Your task to perform on an android device: turn off improve location accuracy Image 0: 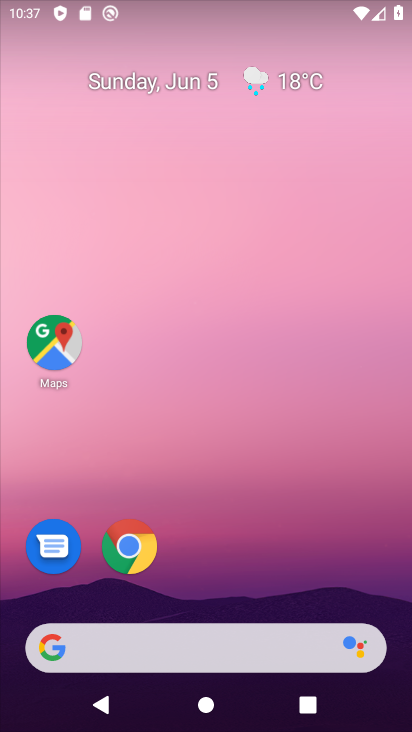
Step 0: drag from (149, 725) to (234, 193)
Your task to perform on an android device: turn off improve location accuracy Image 1: 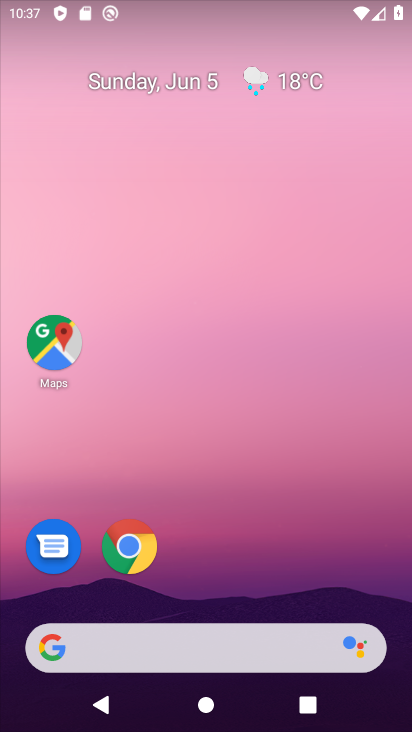
Step 1: drag from (158, 719) to (228, 4)
Your task to perform on an android device: turn off improve location accuracy Image 2: 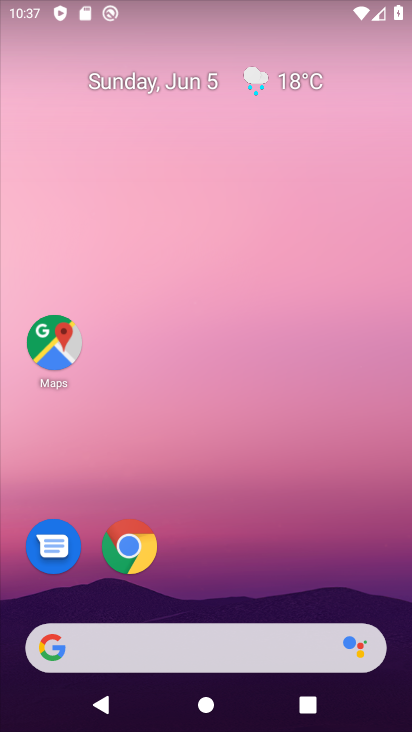
Step 2: drag from (154, 727) to (263, 26)
Your task to perform on an android device: turn off improve location accuracy Image 3: 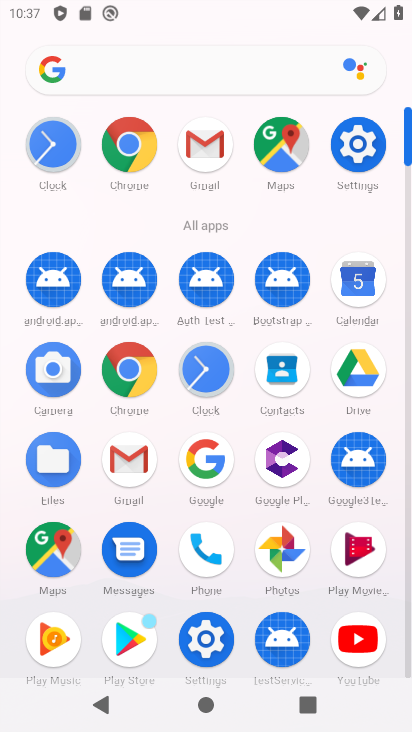
Step 3: click (357, 149)
Your task to perform on an android device: turn off improve location accuracy Image 4: 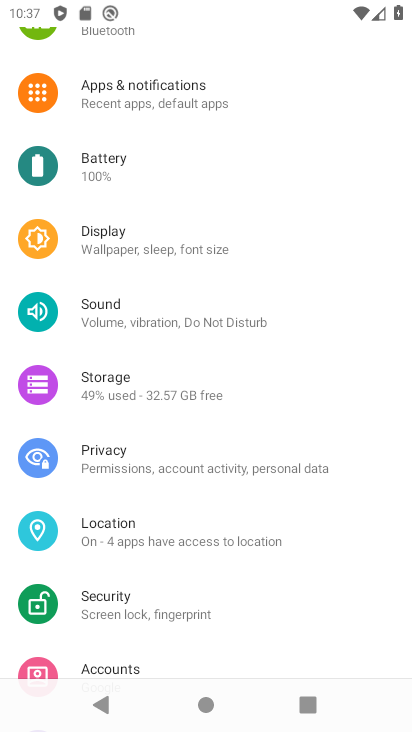
Step 4: click (134, 541)
Your task to perform on an android device: turn off improve location accuracy Image 5: 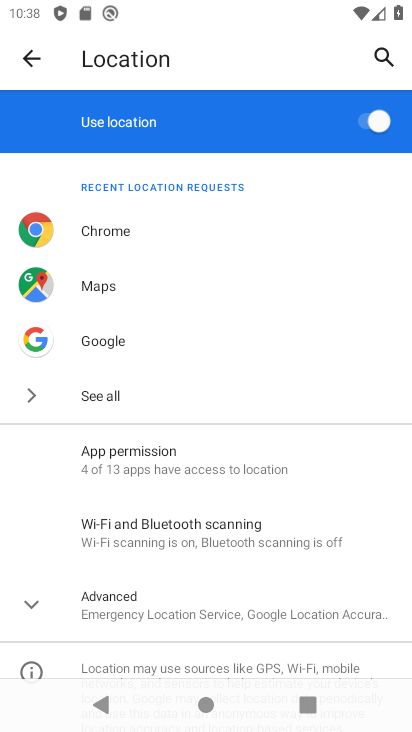
Step 5: click (232, 612)
Your task to perform on an android device: turn off improve location accuracy Image 6: 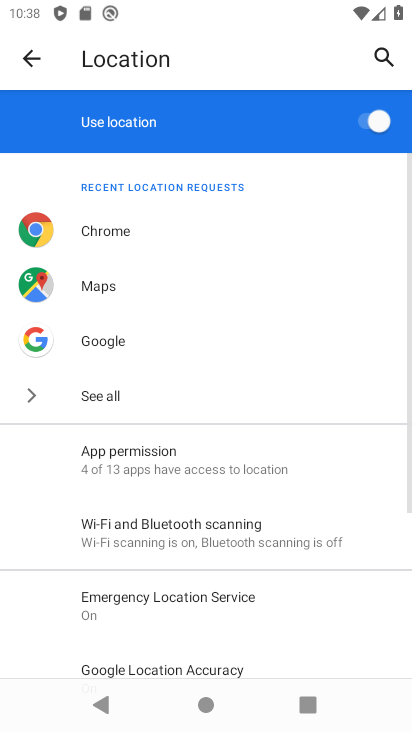
Step 6: click (213, 671)
Your task to perform on an android device: turn off improve location accuracy Image 7: 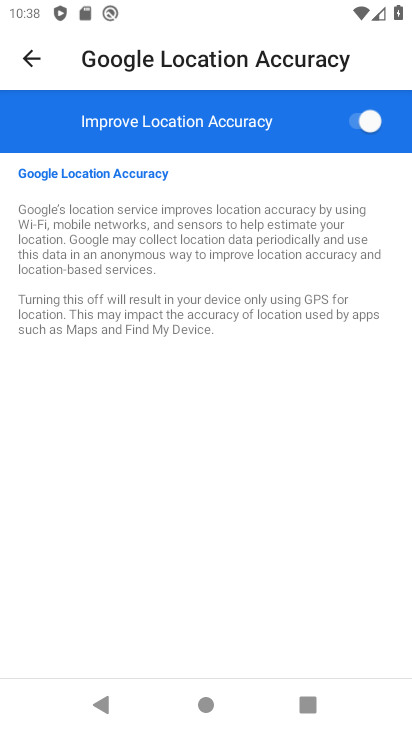
Step 7: click (364, 127)
Your task to perform on an android device: turn off improve location accuracy Image 8: 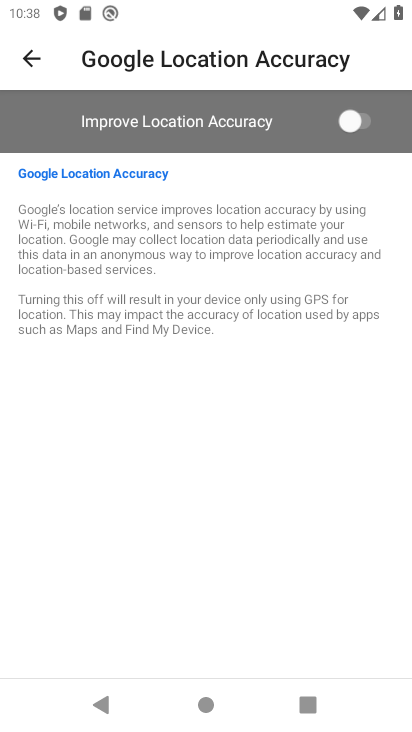
Step 8: task complete